Your task to perform on an android device: clear history in the chrome app Image 0: 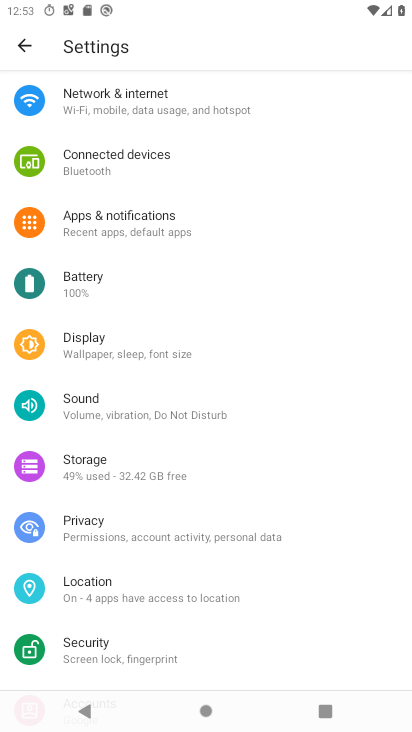
Step 0: press home button
Your task to perform on an android device: clear history in the chrome app Image 1: 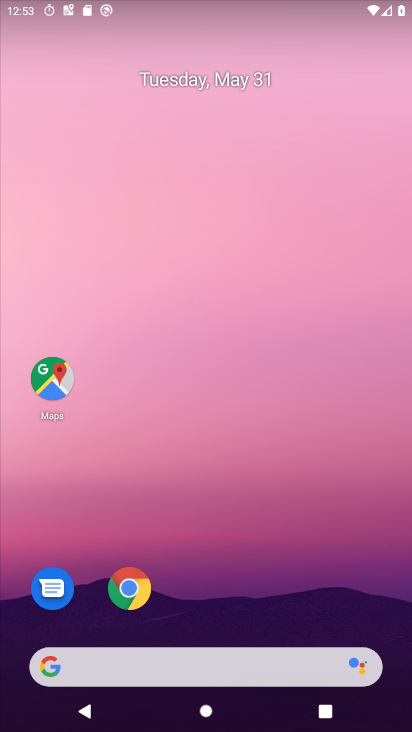
Step 1: drag from (346, 679) to (328, 97)
Your task to perform on an android device: clear history in the chrome app Image 2: 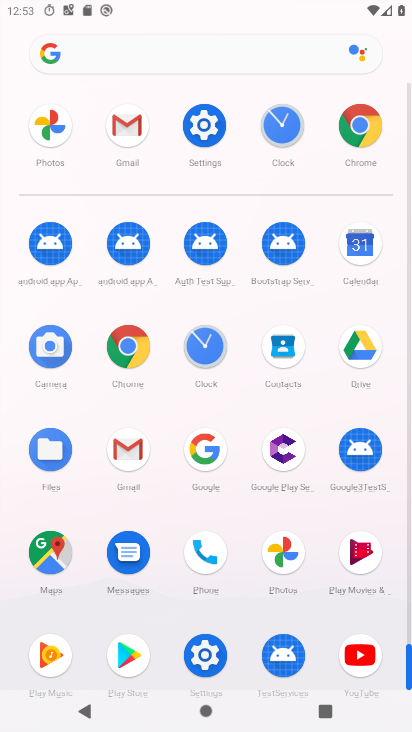
Step 2: click (146, 334)
Your task to perform on an android device: clear history in the chrome app Image 3: 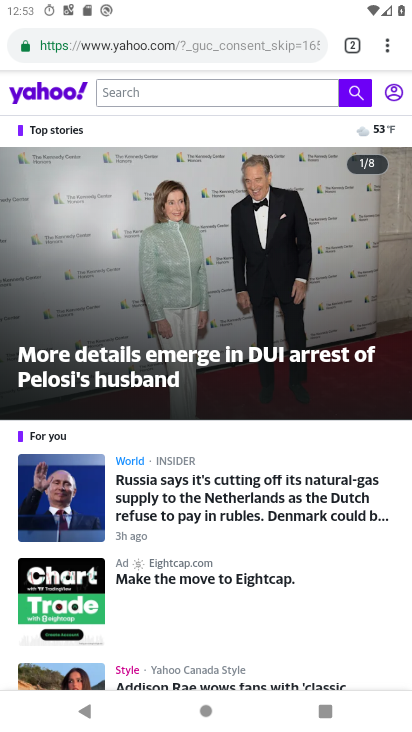
Step 3: drag from (384, 44) to (236, 269)
Your task to perform on an android device: clear history in the chrome app Image 4: 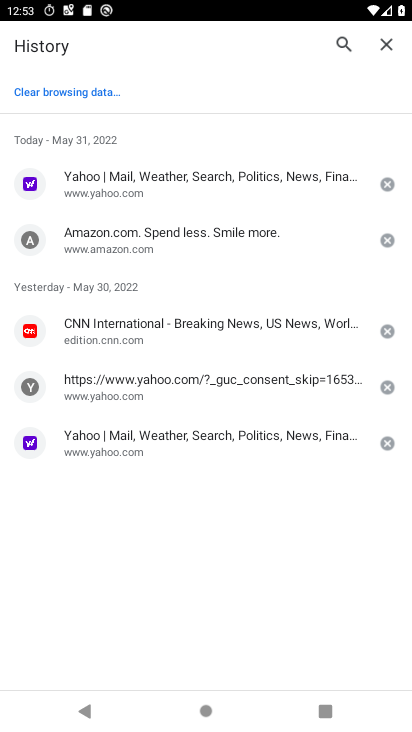
Step 4: click (69, 92)
Your task to perform on an android device: clear history in the chrome app Image 5: 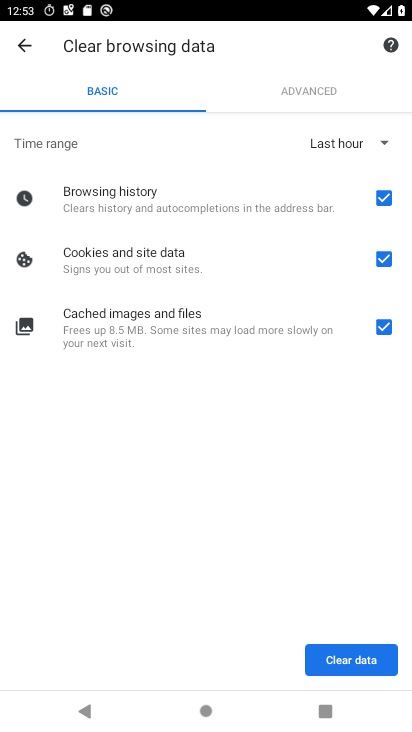
Step 5: click (356, 662)
Your task to perform on an android device: clear history in the chrome app Image 6: 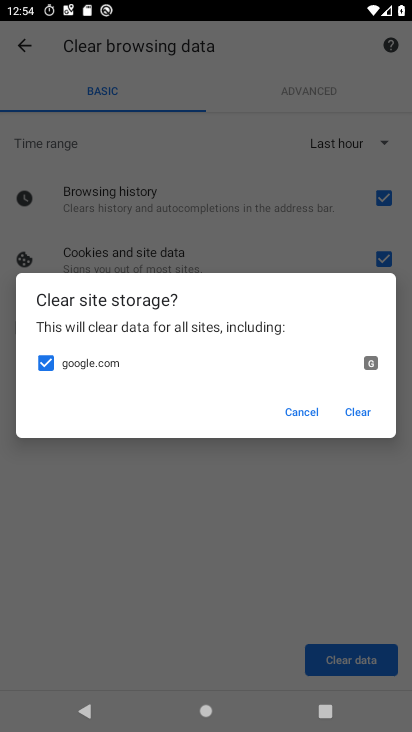
Step 6: click (360, 410)
Your task to perform on an android device: clear history in the chrome app Image 7: 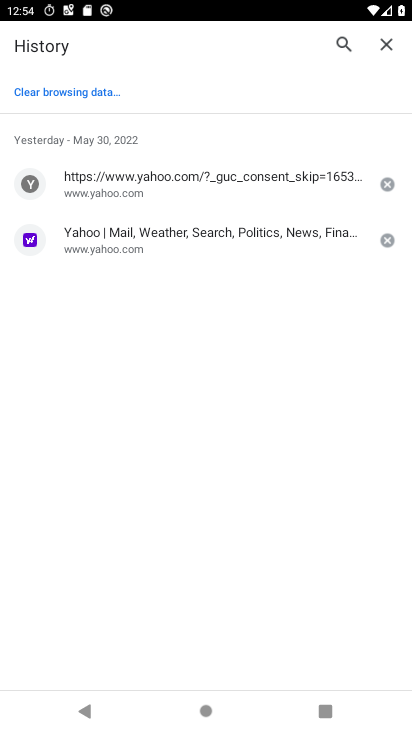
Step 7: click (392, 181)
Your task to perform on an android device: clear history in the chrome app Image 8: 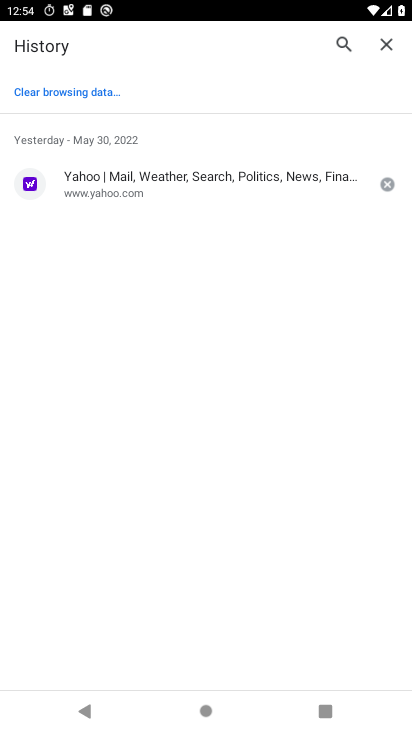
Step 8: click (380, 178)
Your task to perform on an android device: clear history in the chrome app Image 9: 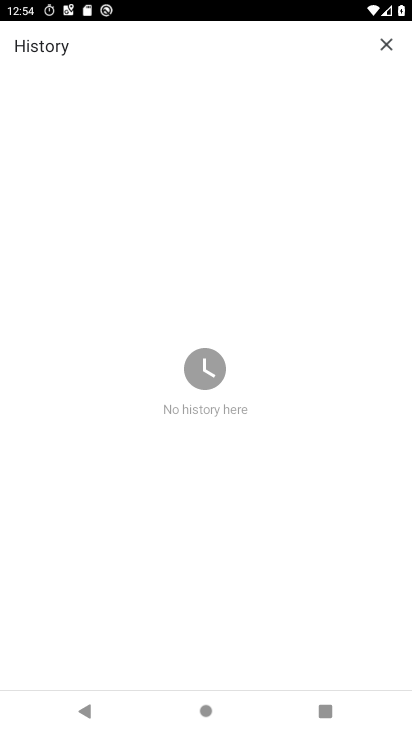
Step 9: task complete